Your task to perform on an android device: Is it going to rain tomorrow? Image 0: 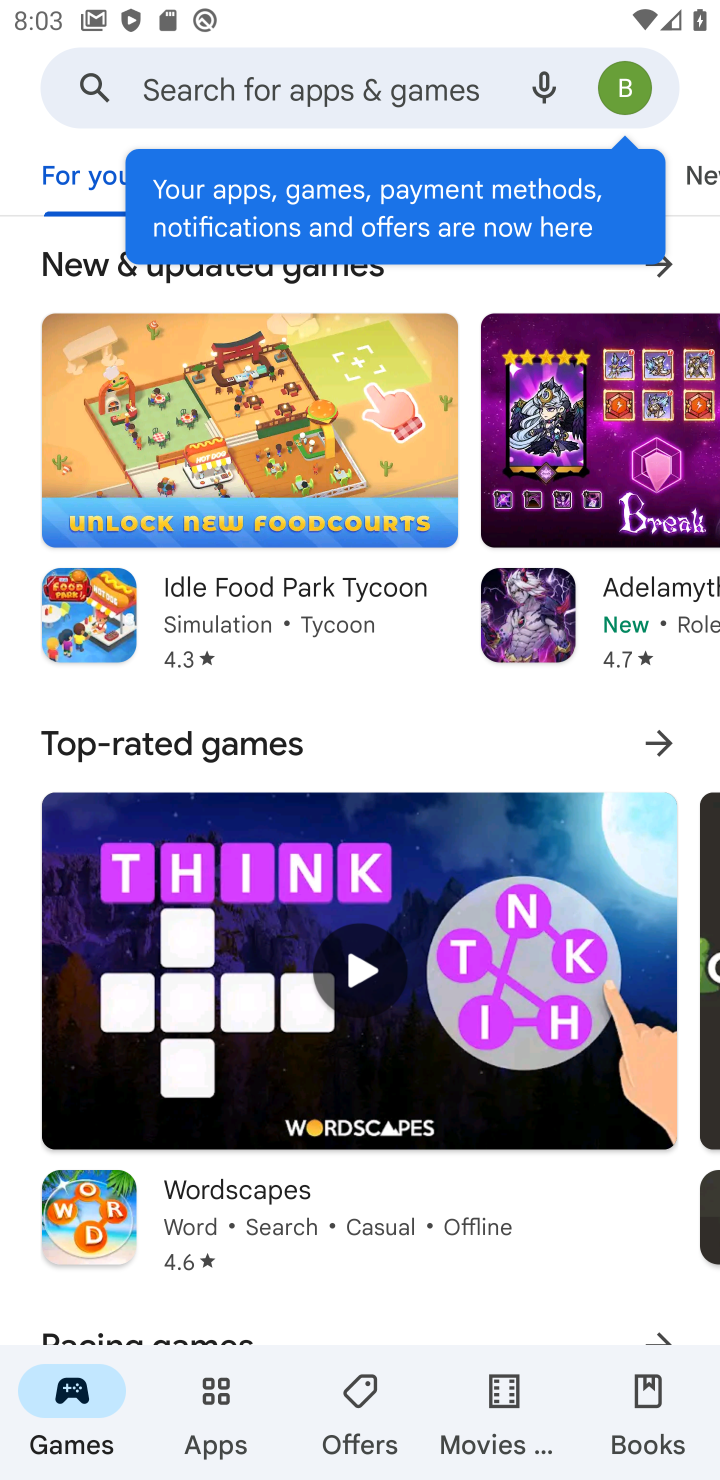
Step 0: press home button
Your task to perform on an android device: Is it going to rain tomorrow? Image 1: 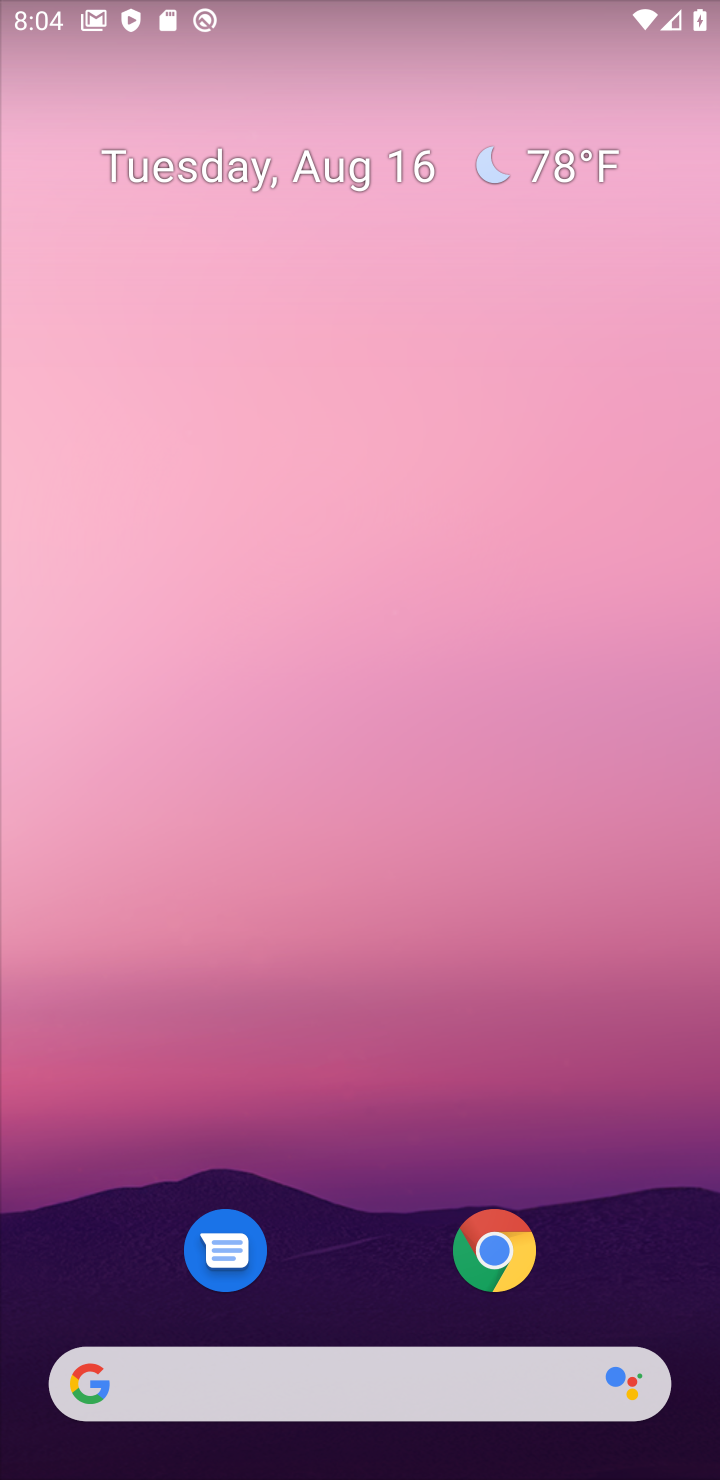
Step 1: click (230, 1384)
Your task to perform on an android device: Is it going to rain tomorrow? Image 2: 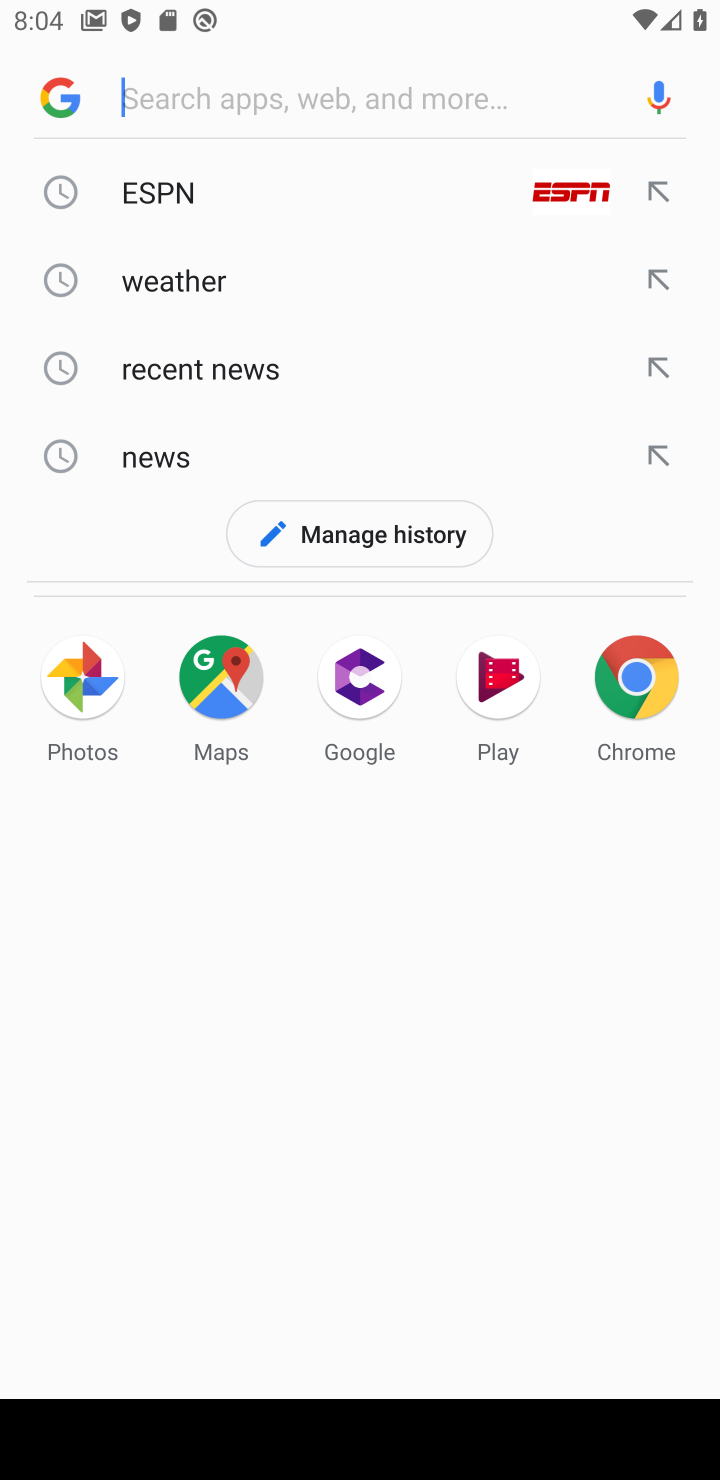
Step 2: click (195, 288)
Your task to perform on an android device: Is it going to rain tomorrow? Image 3: 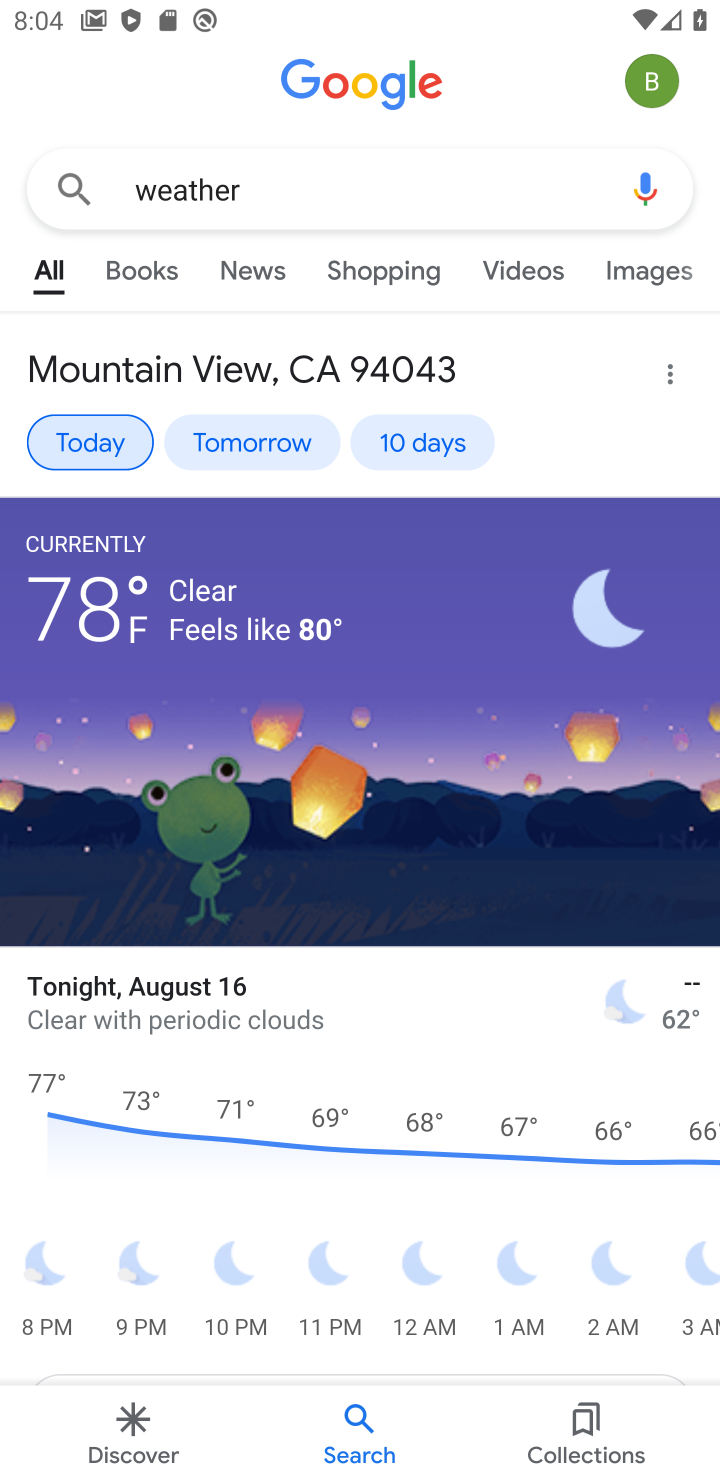
Step 3: task complete